Your task to perform on an android device: Open Youtube and go to "Your channel" Image 0: 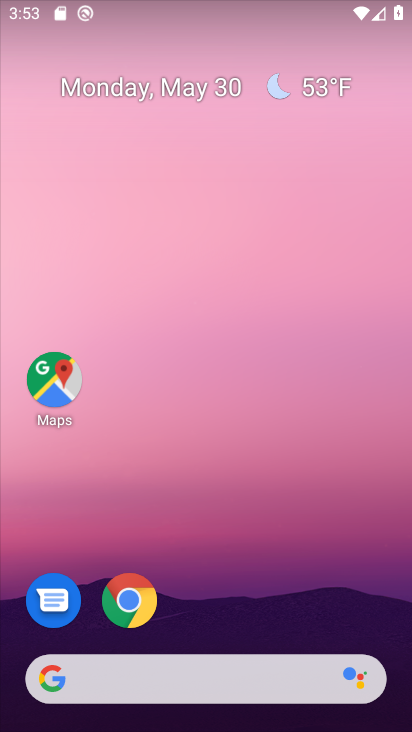
Step 0: drag from (334, 577) to (276, 9)
Your task to perform on an android device: Open Youtube and go to "Your channel" Image 1: 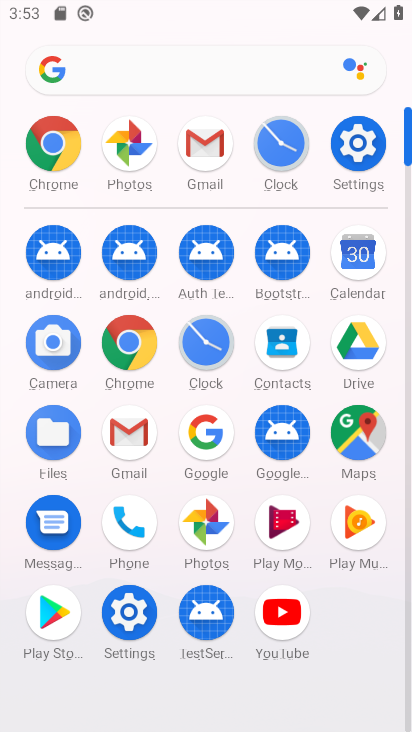
Step 1: click (285, 611)
Your task to perform on an android device: Open Youtube and go to "Your channel" Image 2: 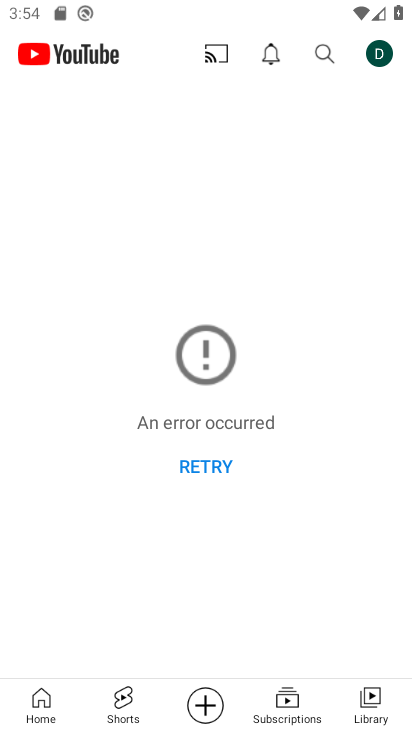
Step 2: click (373, 52)
Your task to perform on an android device: Open Youtube and go to "Your channel" Image 3: 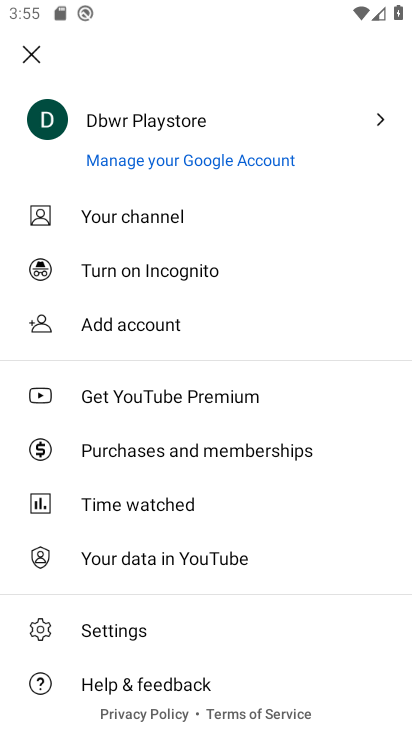
Step 3: click (177, 219)
Your task to perform on an android device: Open Youtube and go to "Your channel" Image 4: 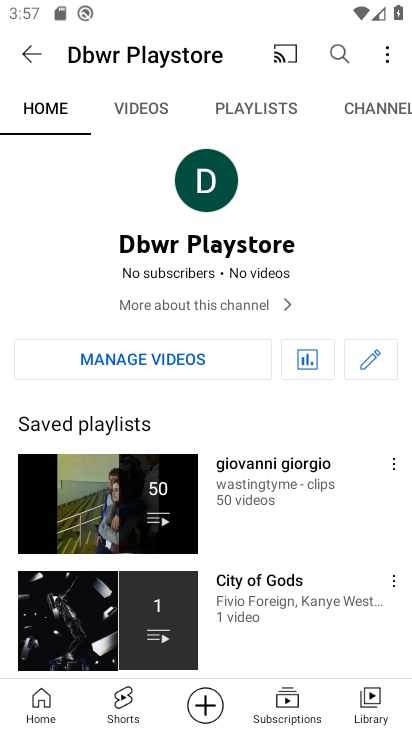
Step 4: task complete